Your task to perform on an android device: turn smart compose on in the gmail app Image 0: 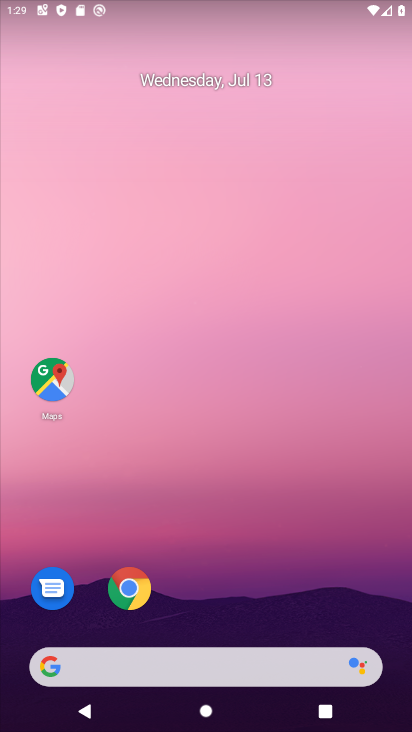
Step 0: drag from (236, 649) to (203, 242)
Your task to perform on an android device: turn smart compose on in the gmail app Image 1: 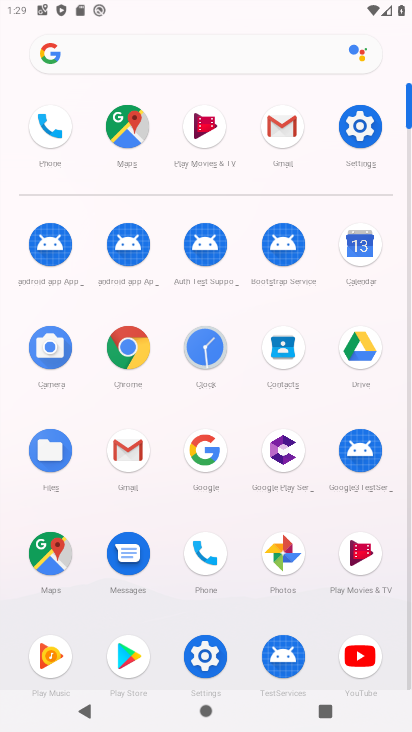
Step 1: click (120, 457)
Your task to perform on an android device: turn smart compose on in the gmail app Image 2: 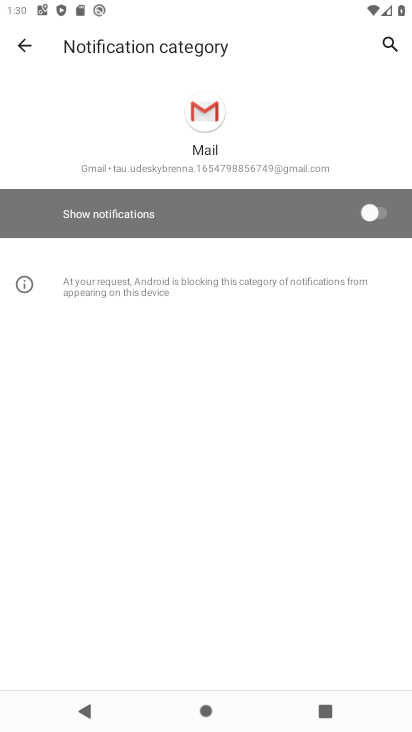
Step 2: click (21, 44)
Your task to perform on an android device: turn smart compose on in the gmail app Image 3: 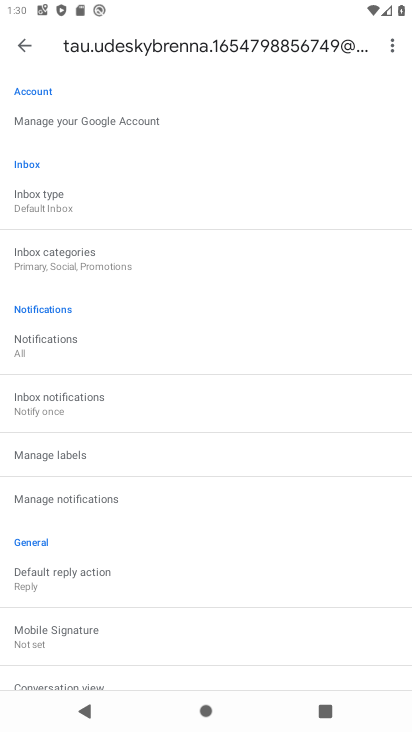
Step 3: task complete